Your task to perform on an android device: show emergency info Image 0: 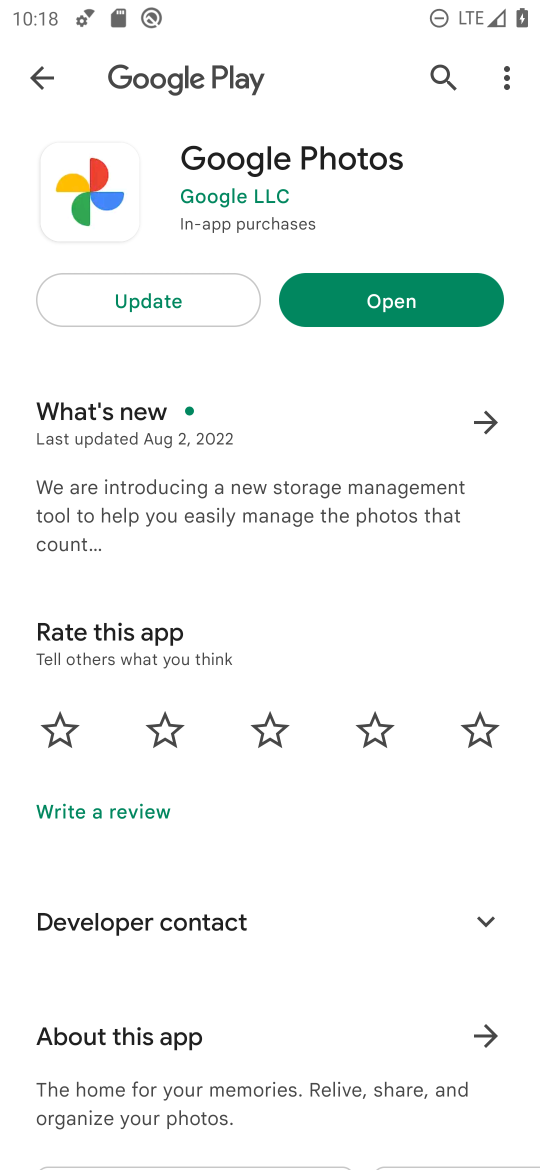
Step 0: press home button
Your task to perform on an android device: show emergency info Image 1: 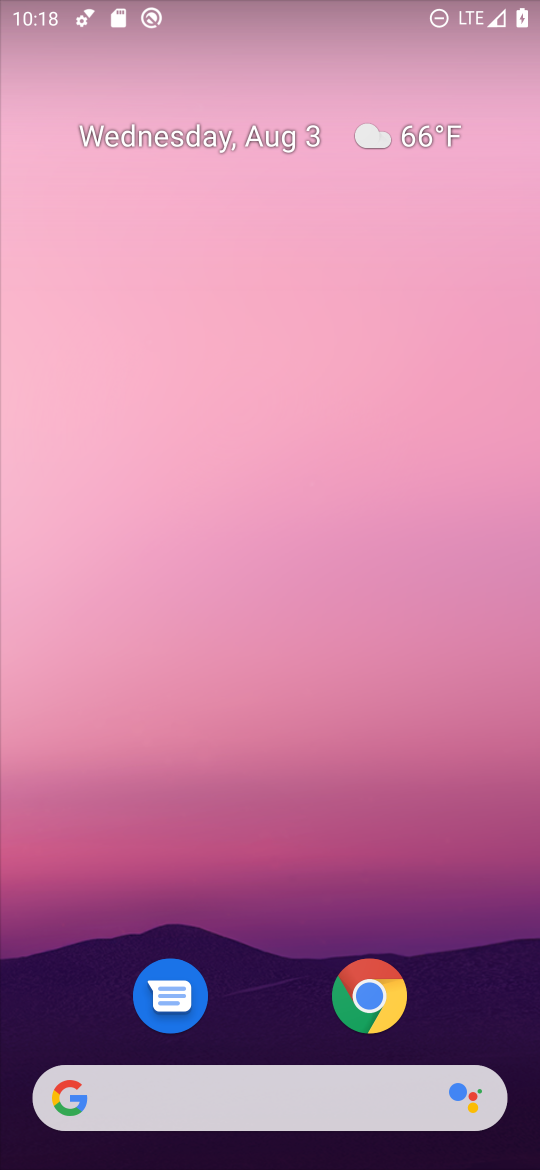
Step 1: drag from (275, 883) to (402, 0)
Your task to perform on an android device: show emergency info Image 2: 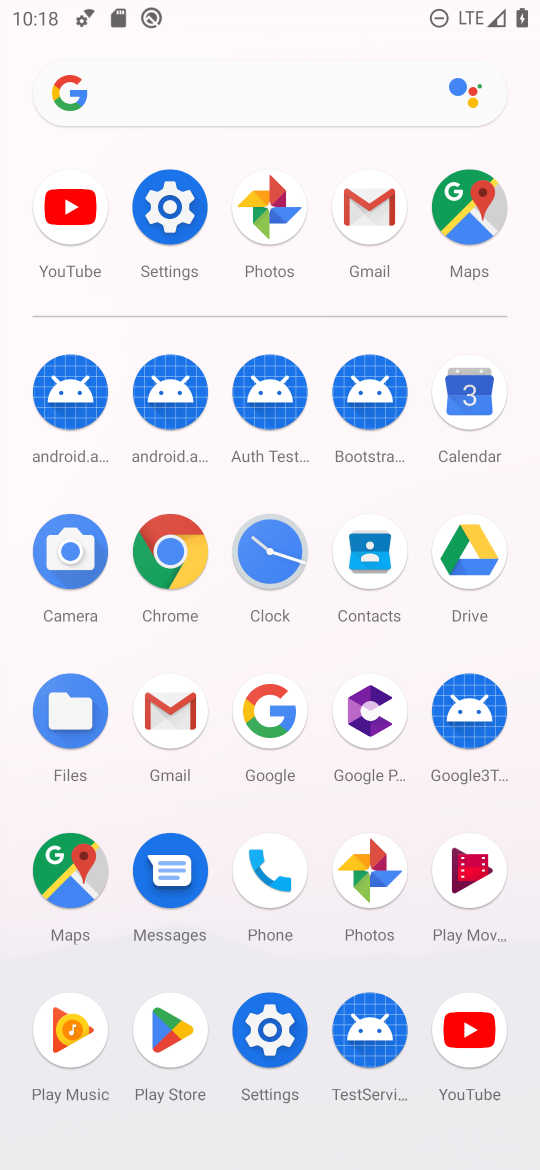
Step 2: click (174, 210)
Your task to perform on an android device: show emergency info Image 3: 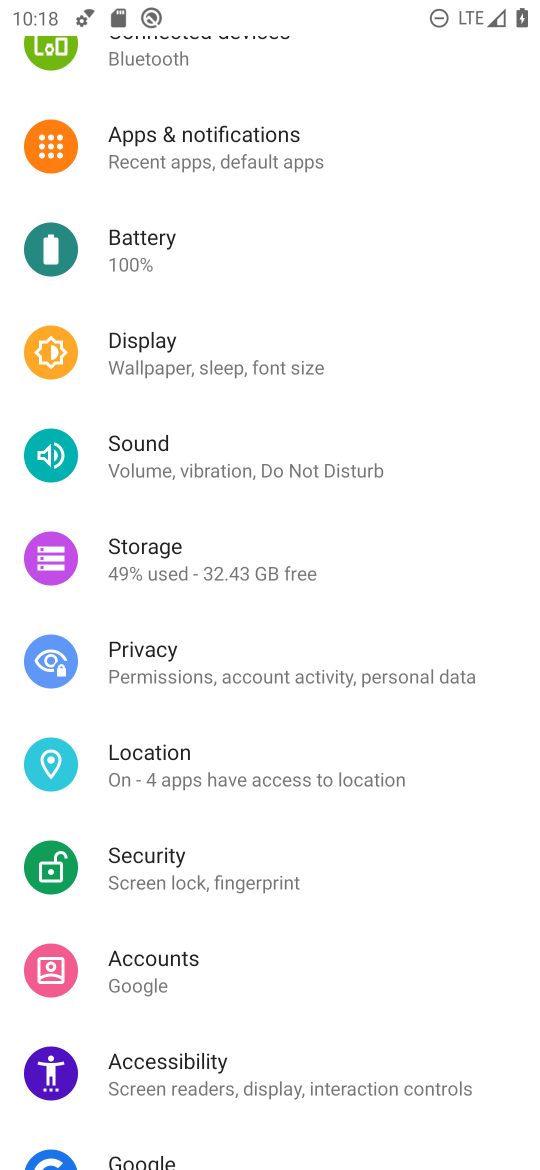
Step 3: drag from (318, 1007) to (369, 366)
Your task to perform on an android device: show emergency info Image 4: 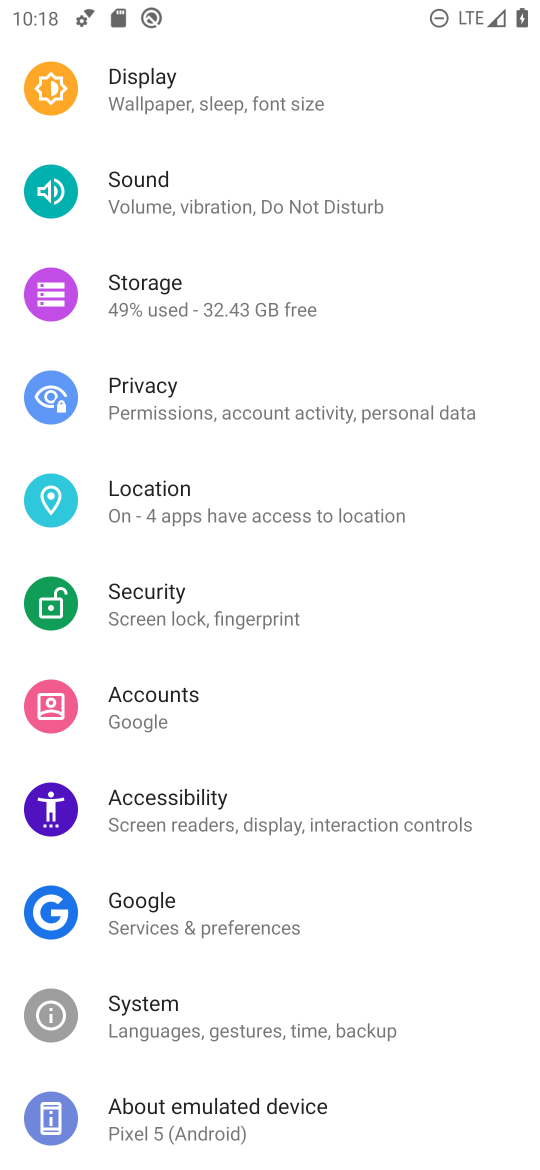
Step 4: click (285, 1101)
Your task to perform on an android device: show emergency info Image 5: 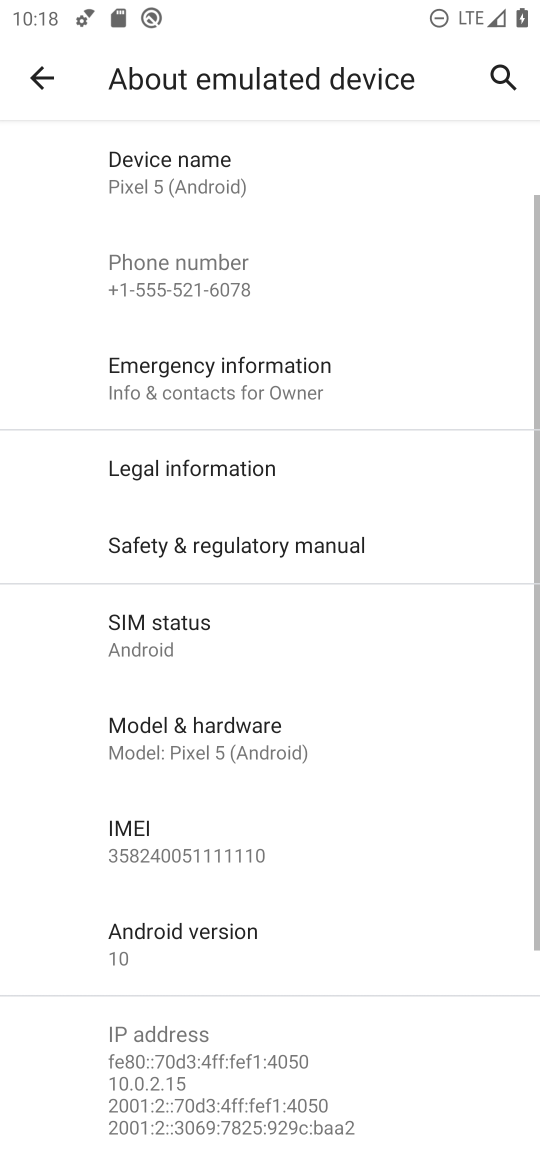
Step 5: click (247, 367)
Your task to perform on an android device: show emergency info Image 6: 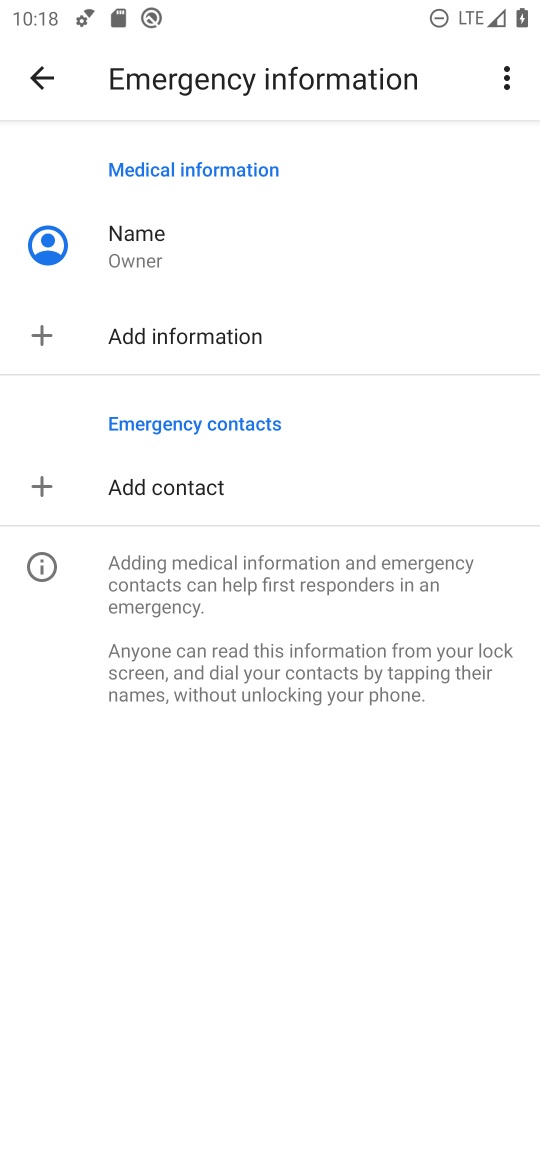
Step 6: task complete